Your task to perform on an android device: Search for flights from San Francisco to Tokyo Image 0: 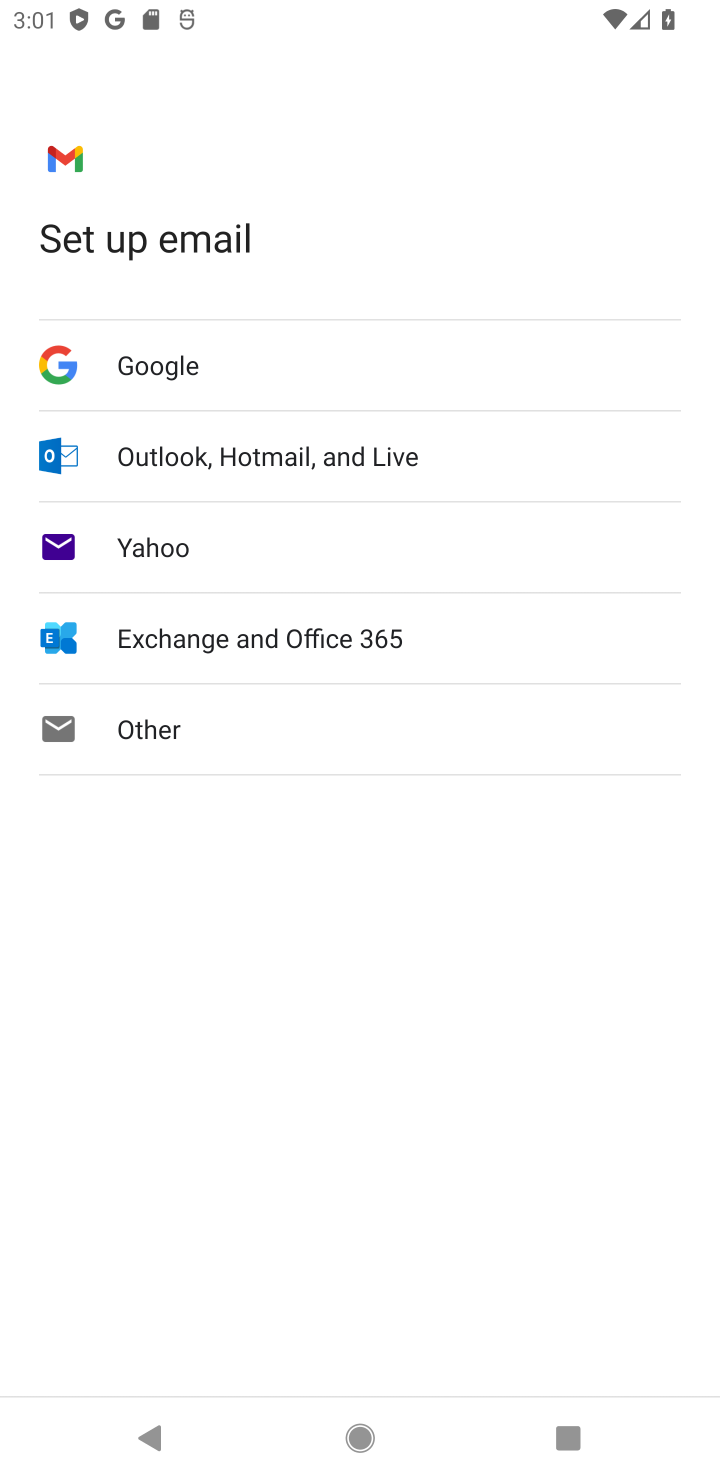
Step 0: press home button
Your task to perform on an android device: Search for flights from San Francisco to Tokyo Image 1: 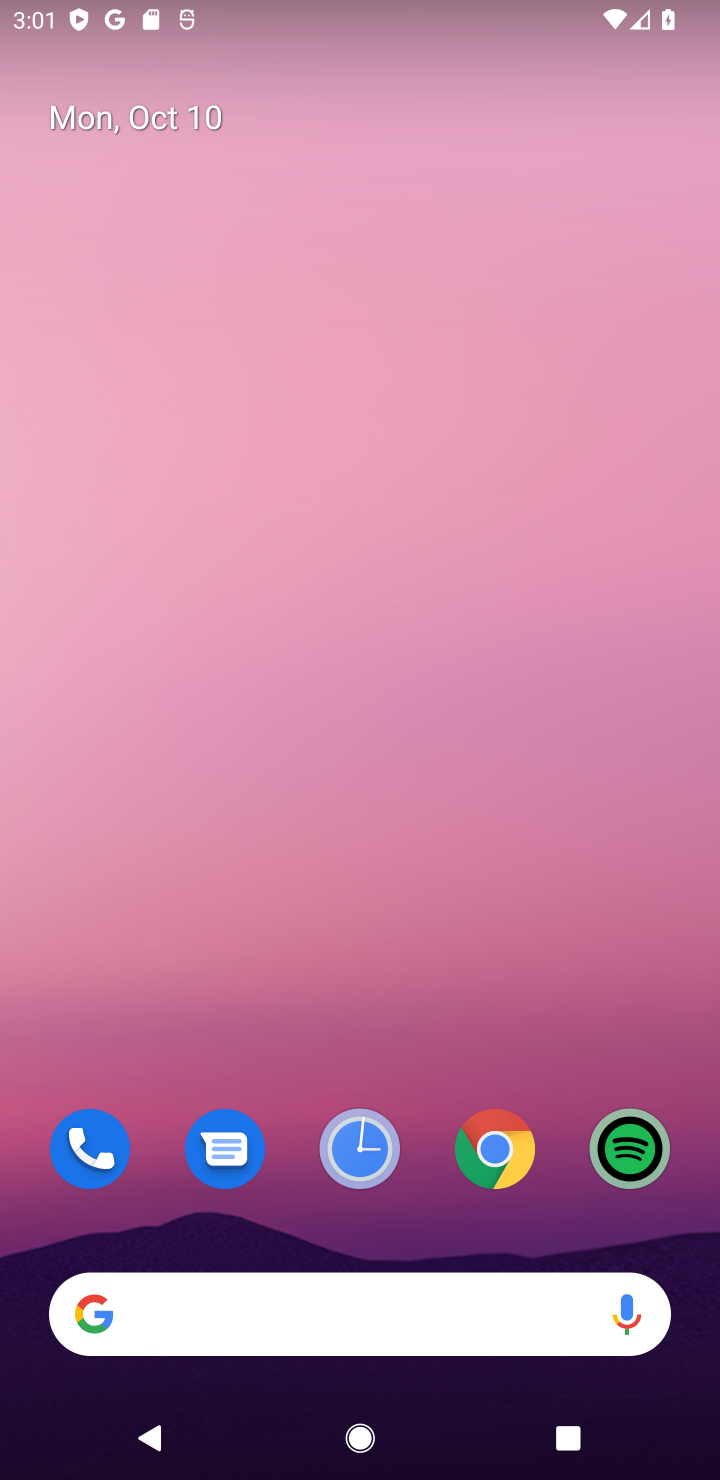
Step 1: click (289, 1316)
Your task to perform on an android device: Search for flights from San Francisco to Tokyo Image 2: 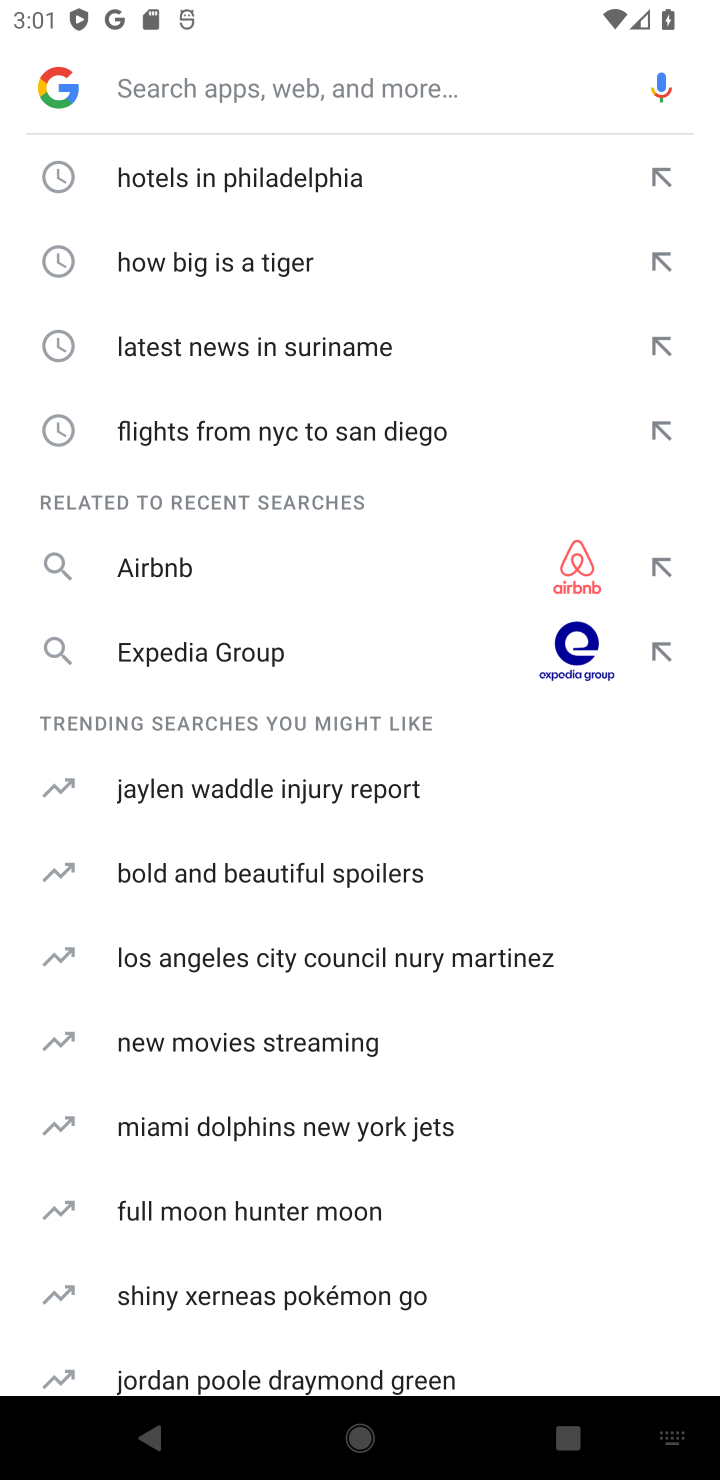
Step 2: type "flights from San Francisco to Tokyo"
Your task to perform on an android device: Search for flights from San Francisco to Tokyo Image 3: 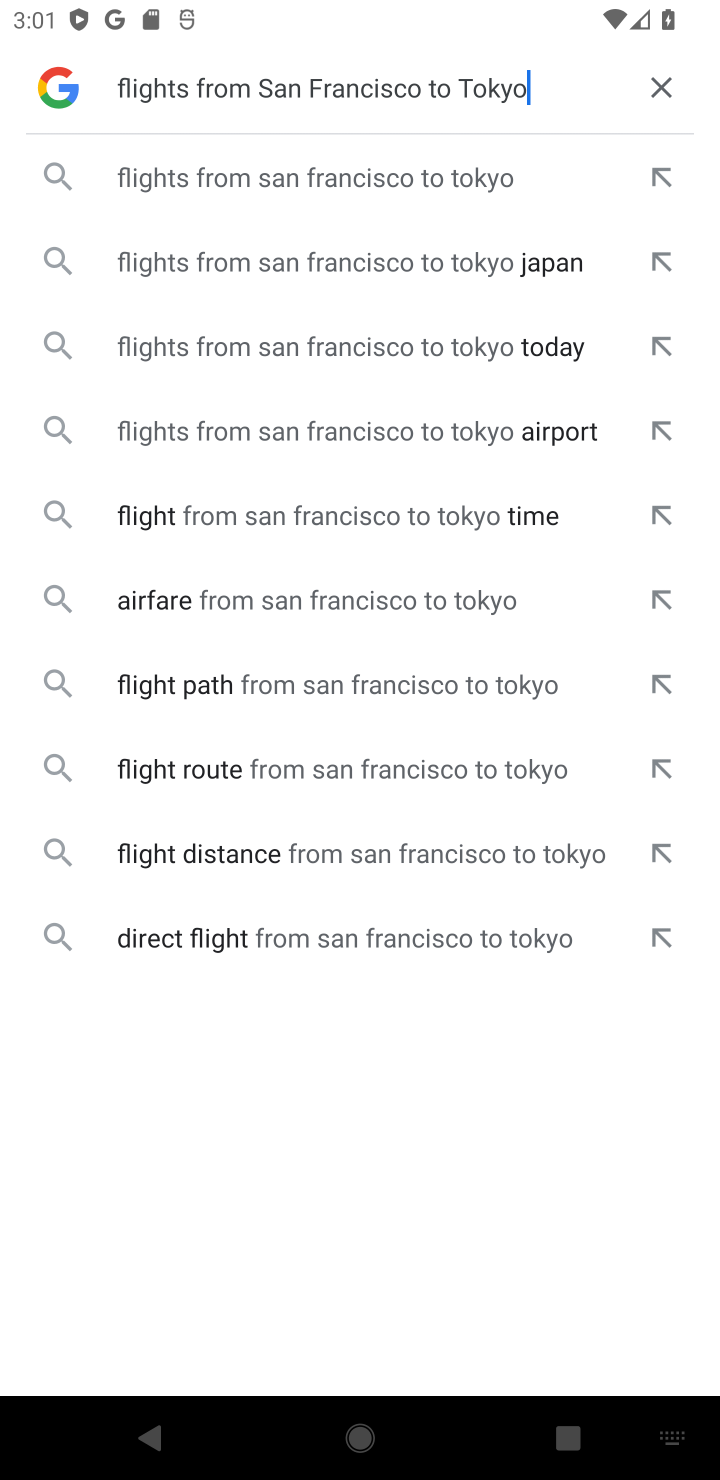
Step 3: click (320, 194)
Your task to perform on an android device: Search for flights from San Francisco to Tokyo Image 4: 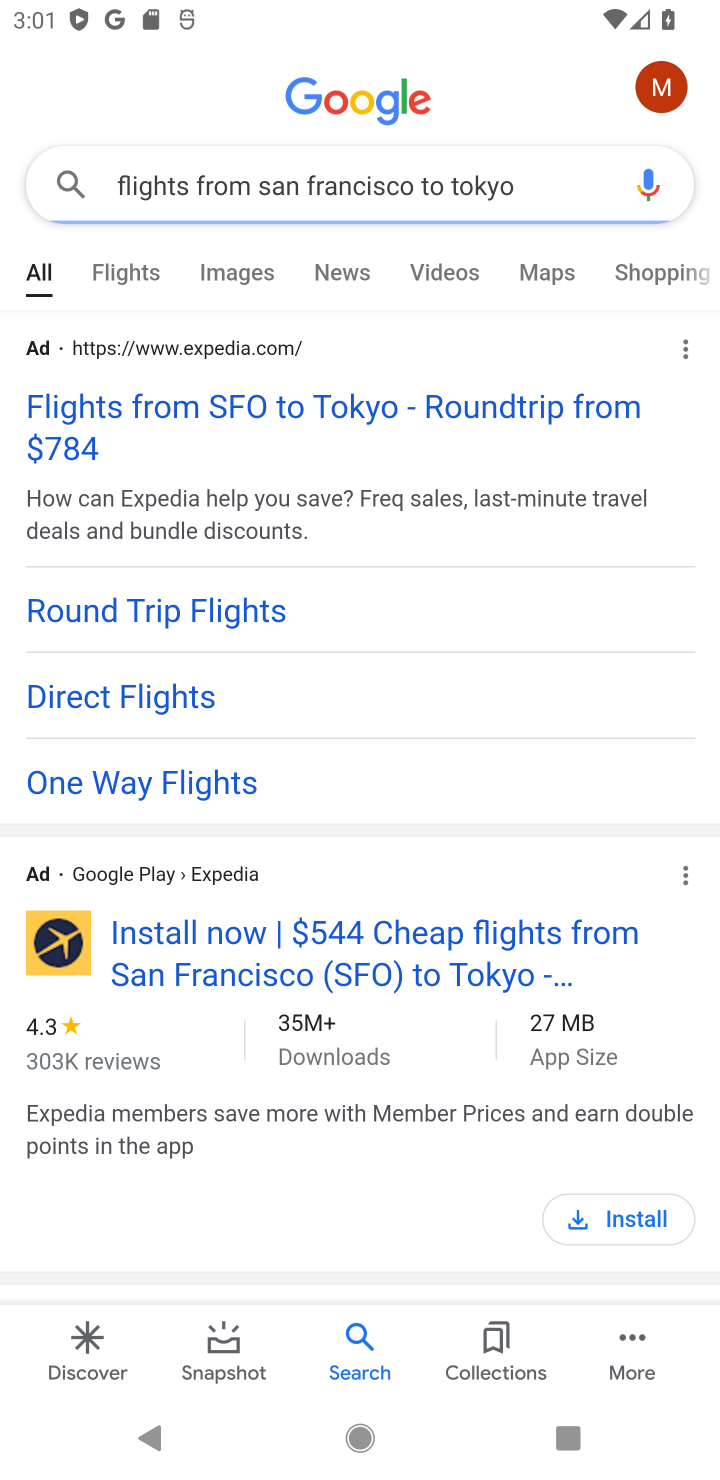
Step 4: task complete